Your task to perform on an android device: search for starred emails in the gmail app Image 0: 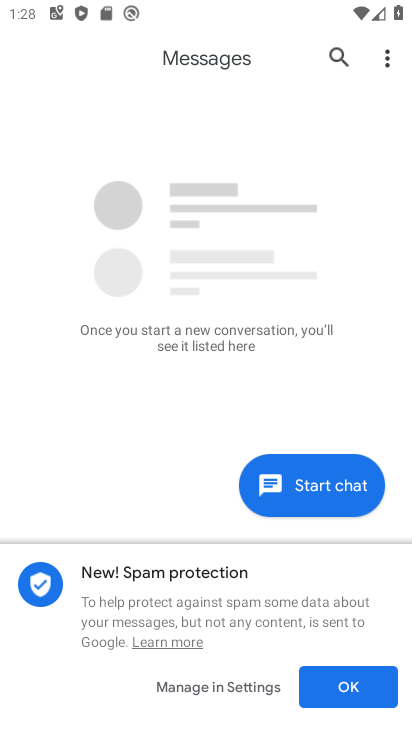
Step 0: press home button
Your task to perform on an android device: search for starred emails in the gmail app Image 1: 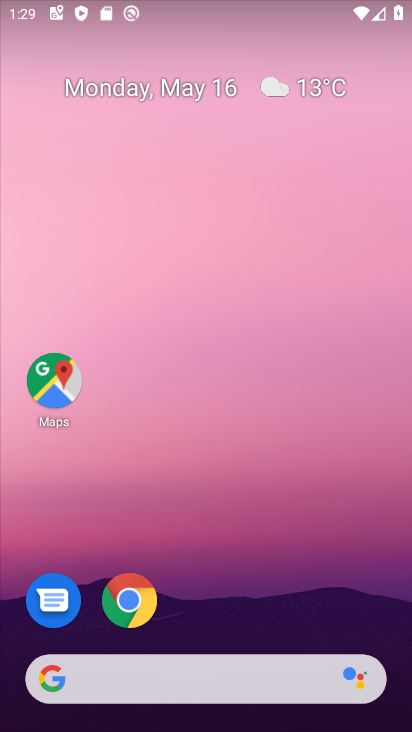
Step 1: drag from (256, 616) to (204, 47)
Your task to perform on an android device: search for starred emails in the gmail app Image 2: 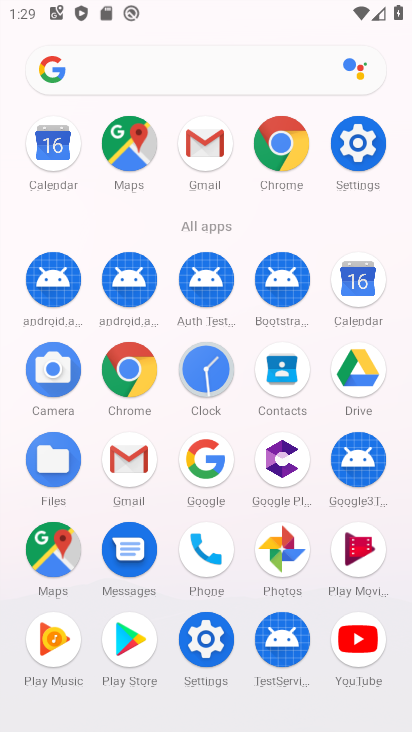
Step 2: click (135, 444)
Your task to perform on an android device: search for starred emails in the gmail app Image 3: 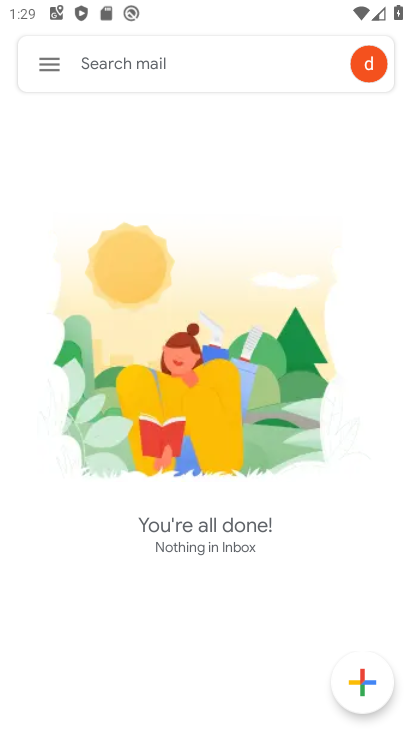
Step 3: click (47, 73)
Your task to perform on an android device: search for starred emails in the gmail app Image 4: 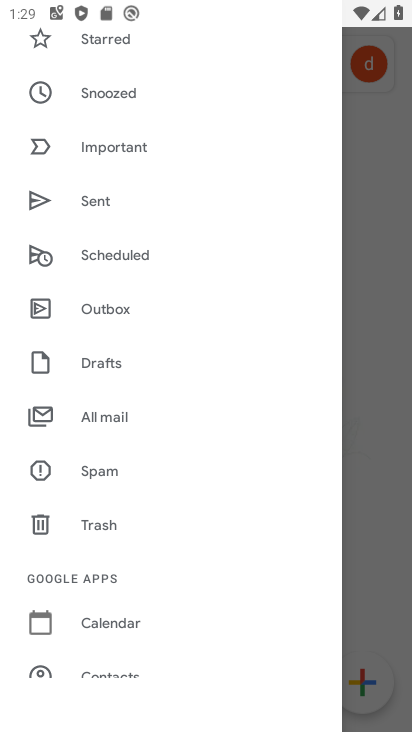
Step 4: click (121, 46)
Your task to perform on an android device: search for starred emails in the gmail app Image 5: 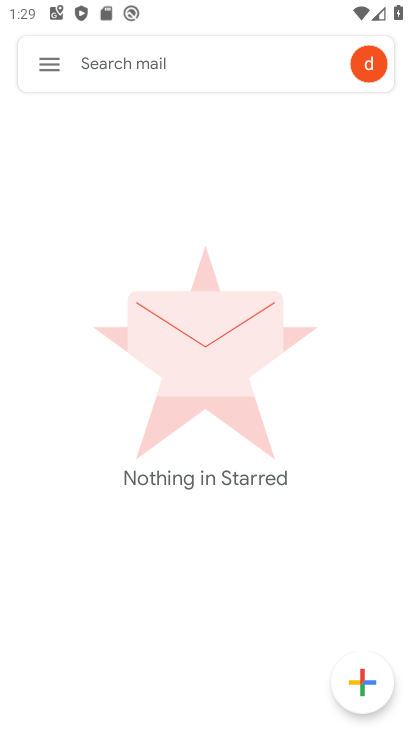
Step 5: task complete